Your task to perform on an android device: Open display settings Image 0: 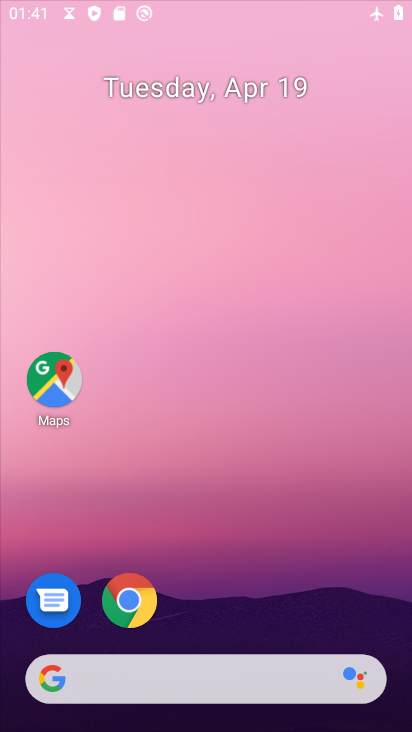
Step 0: click (166, 59)
Your task to perform on an android device: Open display settings Image 1: 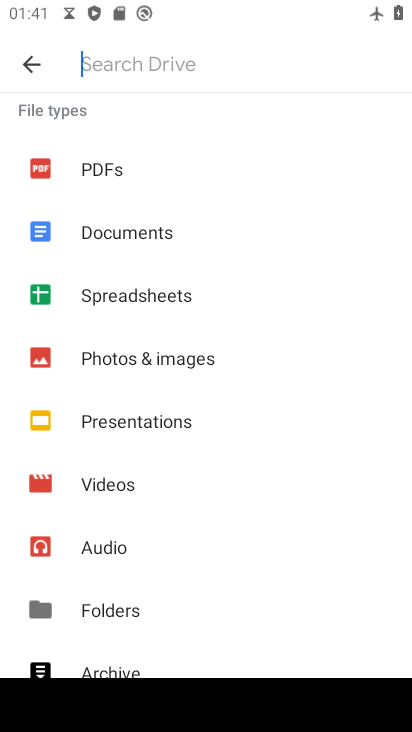
Step 1: press home button
Your task to perform on an android device: Open display settings Image 2: 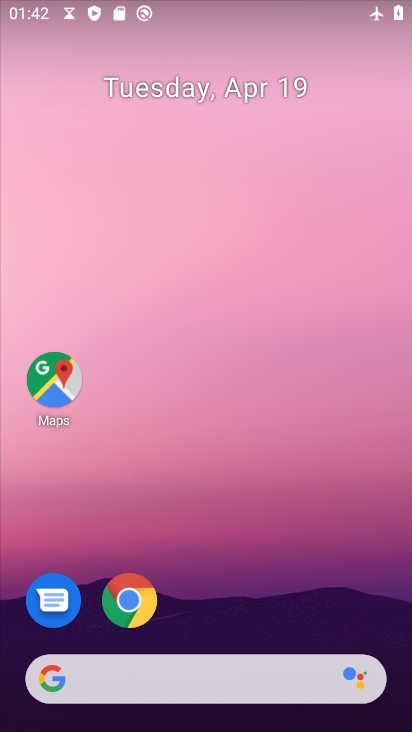
Step 2: drag from (187, 642) to (244, 5)
Your task to perform on an android device: Open display settings Image 3: 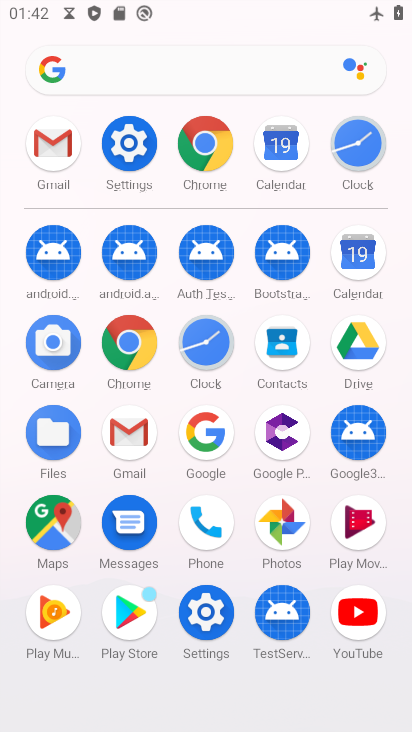
Step 3: click (196, 602)
Your task to perform on an android device: Open display settings Image 4: 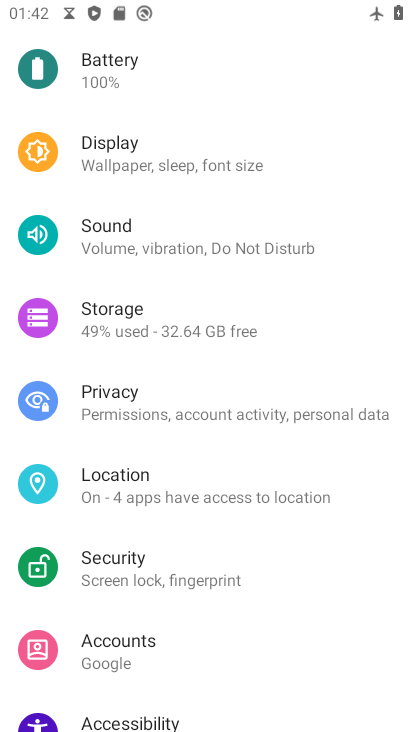
Step 4: click (109, 159)
Your task to perform on an android device: Open display settings Image 5: 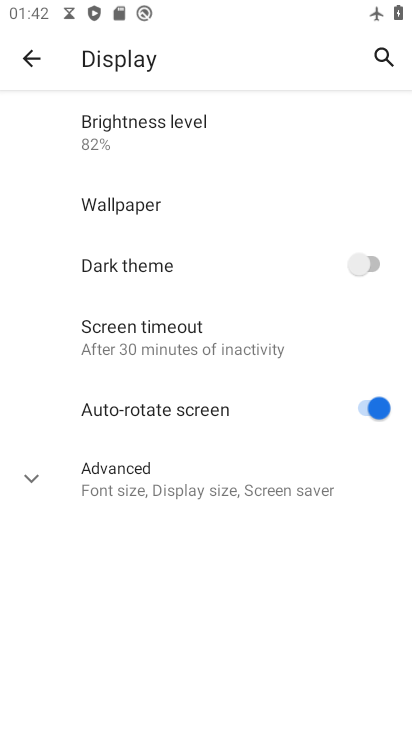
Step 5: click (170, 465)
Your task to perform on an android device: Open display settings Image 6: 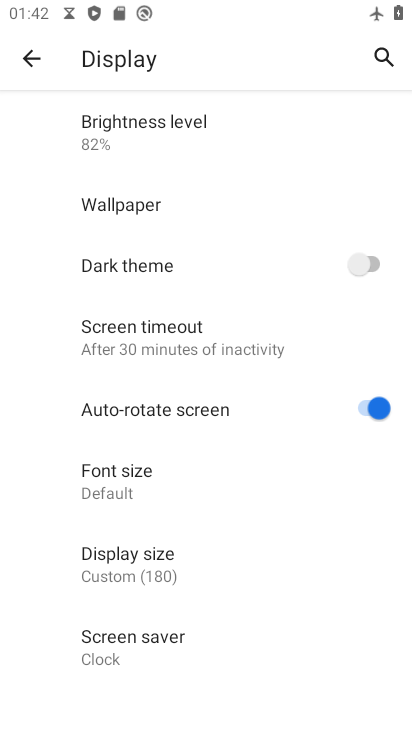
Step 6: task complete